Your task to perform on an android device: turn off picture-in-picture Image 0: 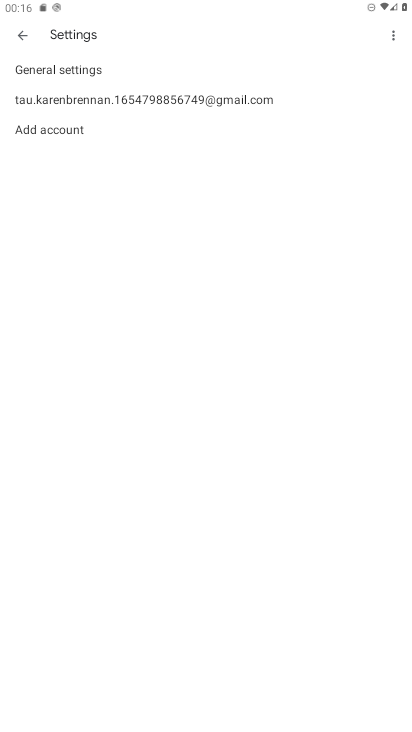
Step 0: press home button
Your task to perform on an android device: turn off picture-in-picture Image 1: 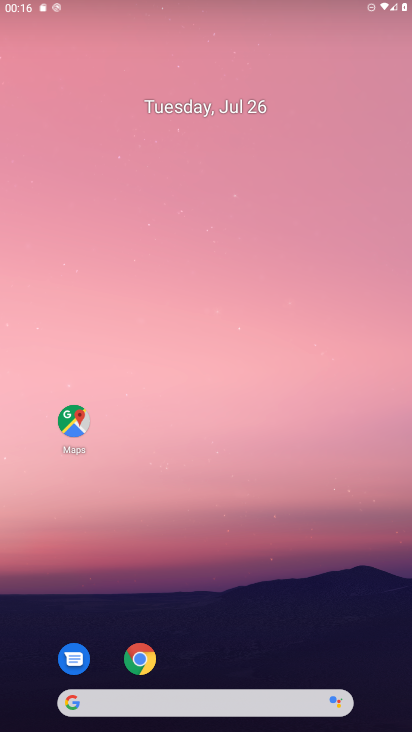
Step 1: drag from (277, 605) to (293, 101)
Your task to perform on an android device: turn off picture-in-picture Image 2: 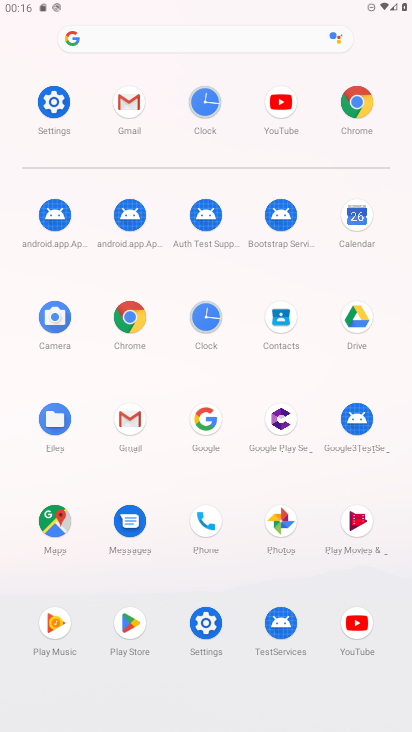
Step 2: click (142, 323)
Your task to perform on an android device: turn off picture-in-picture Image 3: 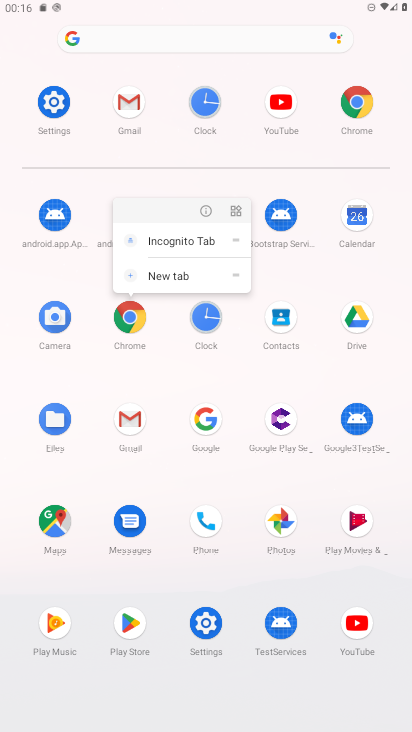
Step 3: click (202, 208)
Your task to perform on an android device: turn off picture-in-picture Image 4: 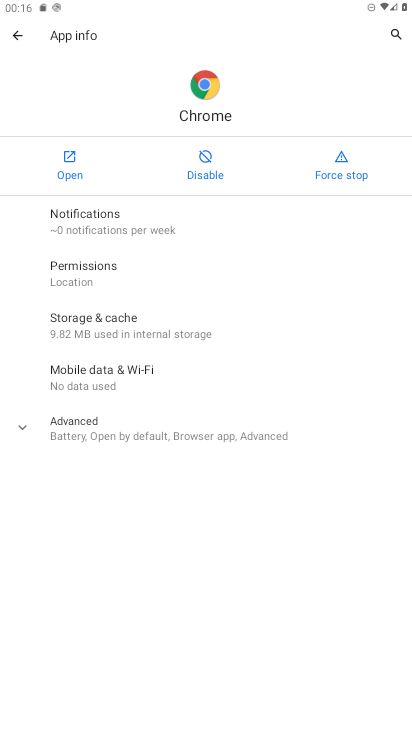
Step 4: click (183, 421)
Your task to perform on an android device: turn off picture-in-picture Image 5: 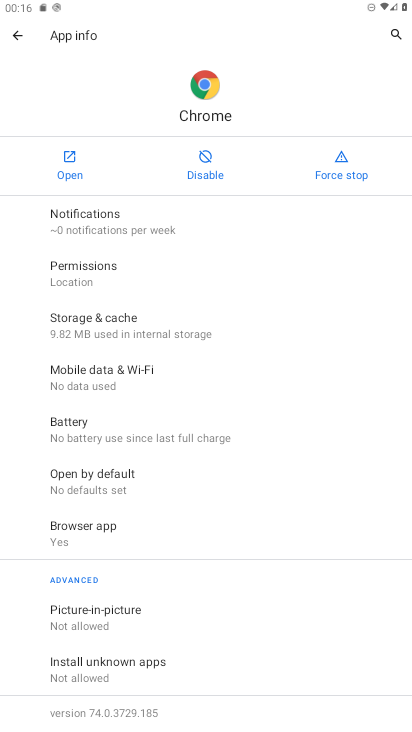
Step 5: click (106, 613)
Your task to perform on an android device: turn off picture-in-picture Image 6: 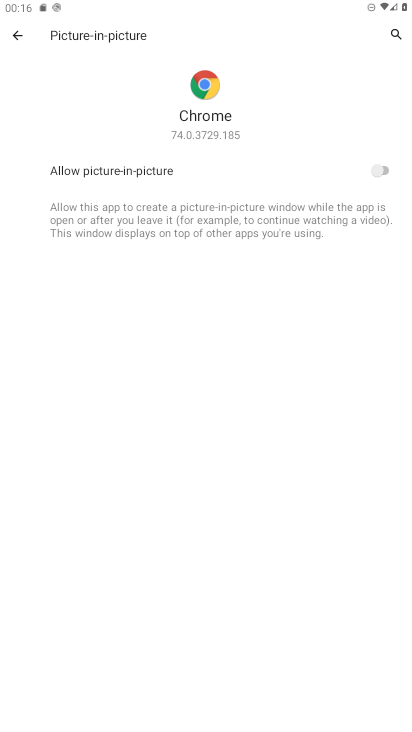
Step 6: task complete